Your task to perform on an android device: turn off smart reply in the gmail app Image 0: 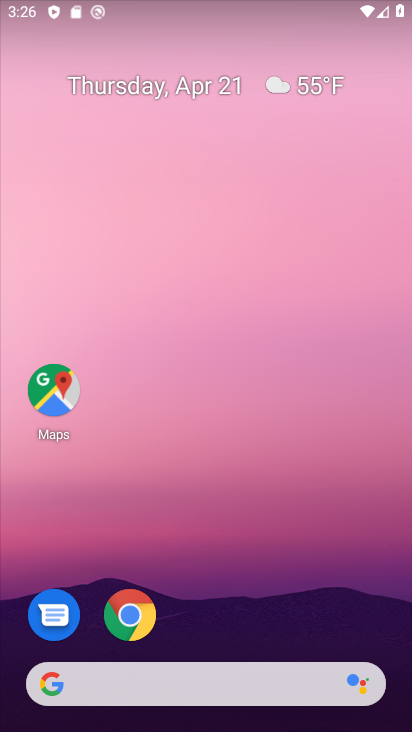
Step 0: drag from (235, 541) to (163, 25)
Your task to perform on an android device: turn off smart reply in the gmail app Image 1: 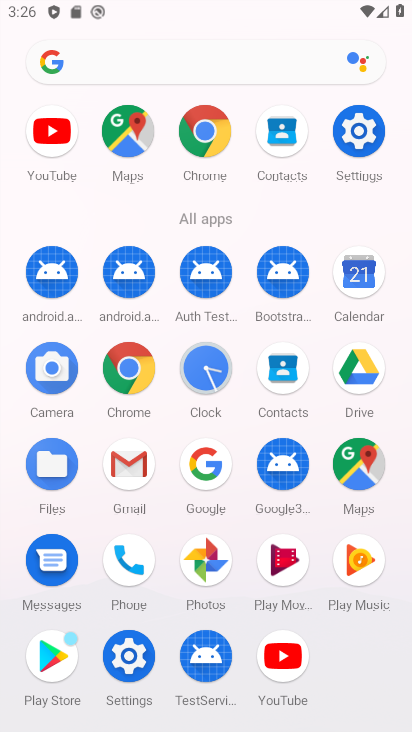
Step 1: click (0, 377)
Your task to perform on an android device: turn off smart reply in the gmail app Image 2: 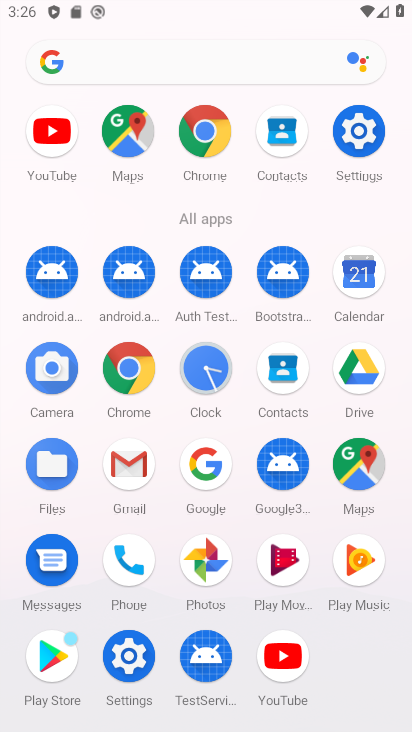
Step 2: click (128, 456)
Your task to perform on an android device: turn off smart reply in the gmail app Image 3: 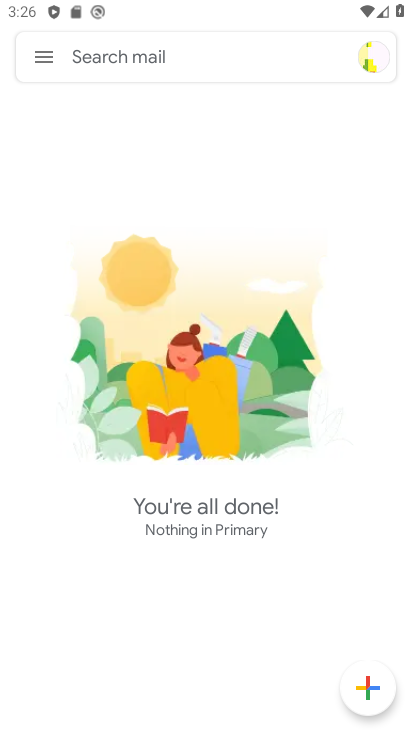
Step 3: click (45, 58)
Your task to perform on an android device: turn off smart reply in the gmail app Image 4: 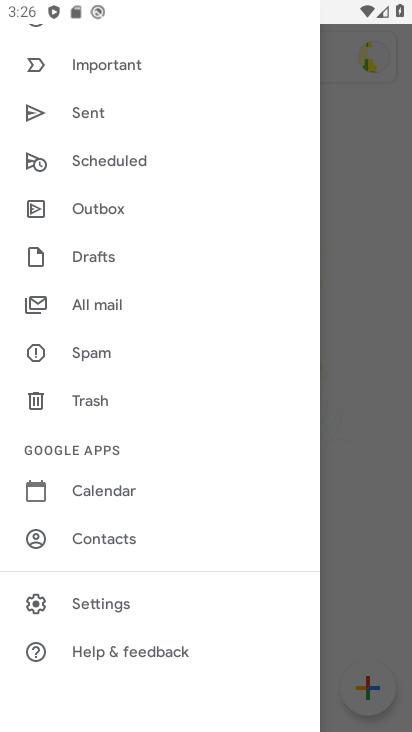
Step 4: drag from (180, 503) to (191, 121)
Your task to perform on an android device: turn off smart reply in the gmail app Image 5: 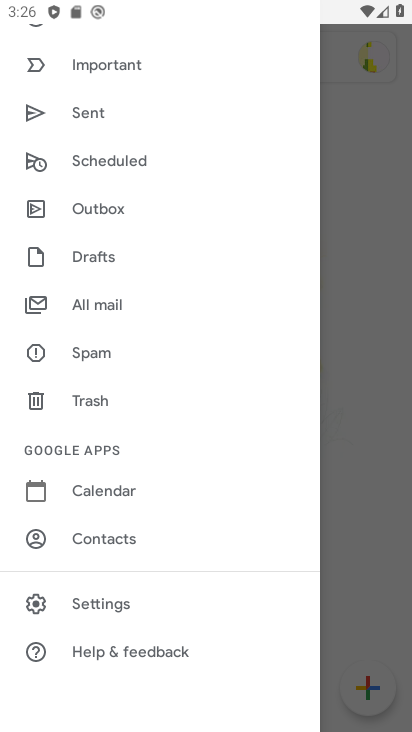
Step 5: click (112, 600)
Your task to perform on an android device: turn off smart reply in the gmail app Image 6: 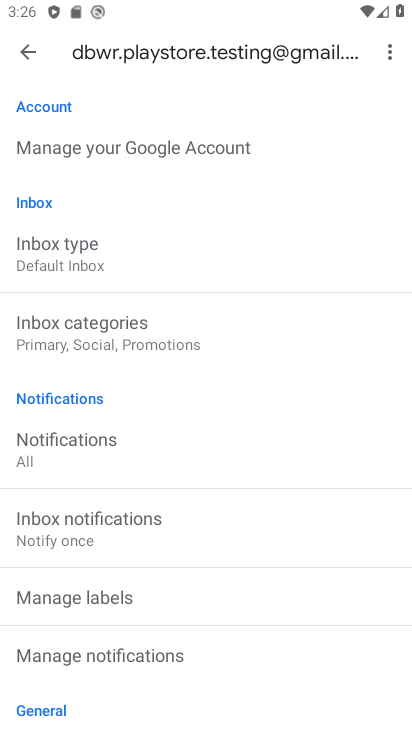
Step 6: drag from (207, 532) to (248, 210)
Your task to perform on an android device: turn off smart reply in the gmail app Image 7: 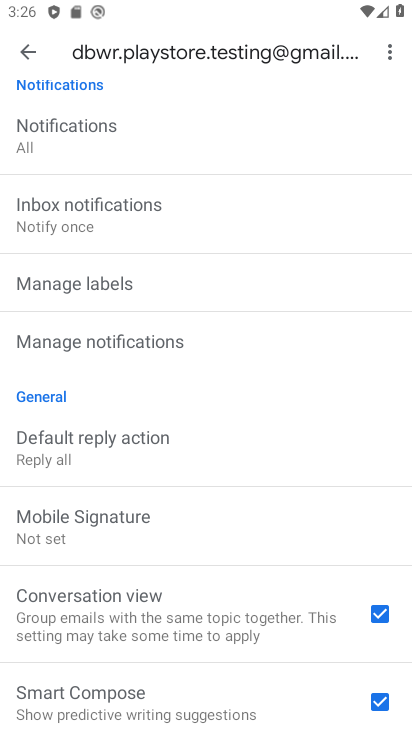
Step 7: drag from (247, 227) to (209, 500)
Your task to perform on an android device: turn off smart reply in the gmail app Image 8: 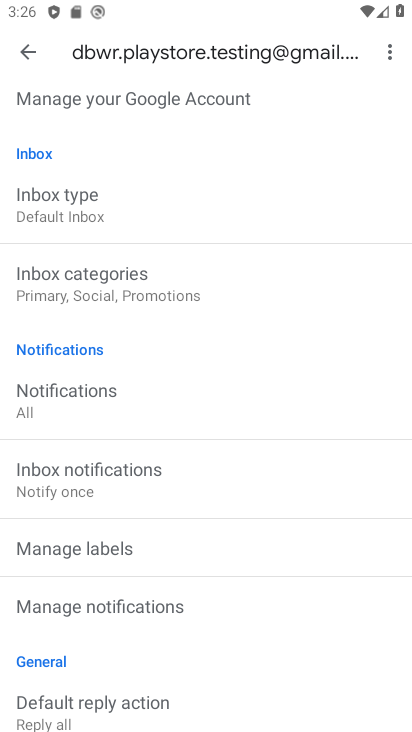
Step 8: drag from (212, 163) to (191, 451)
Your task to perform on an android device: turn off smart reply in the gmail app Image 9: 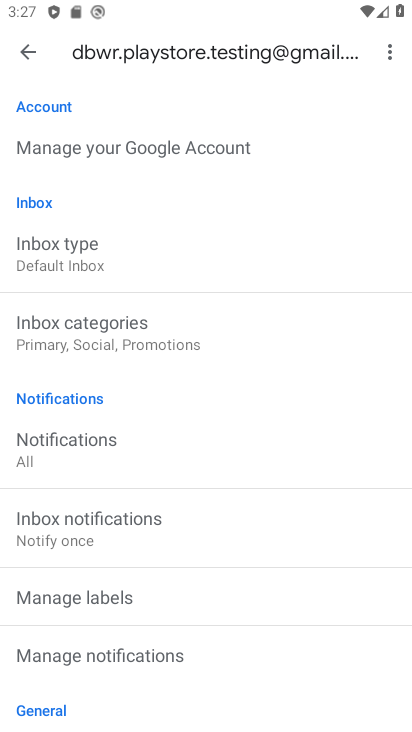
Step 9: drag from (178, 521) to (198, 241)
Your task to perform on an android device: turn off smart reply in the gmail app Image 10: 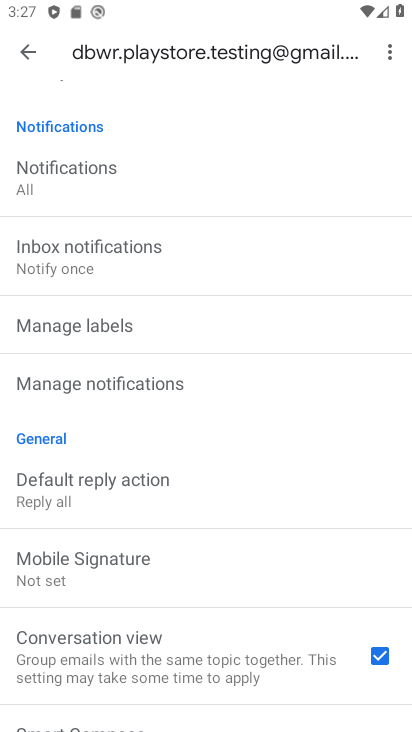
Step 10: drag from (147, 594) to (171, 233)
Your task to perform on an android device: turn off smart reply in the gmail app Image 11: 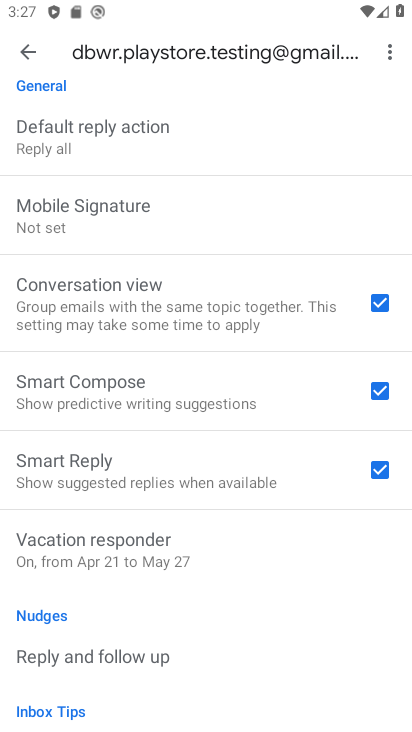
Step 11: click (376, 466)
Your task to perform on an android device: turn off smart reply in the gmail app Image 12: 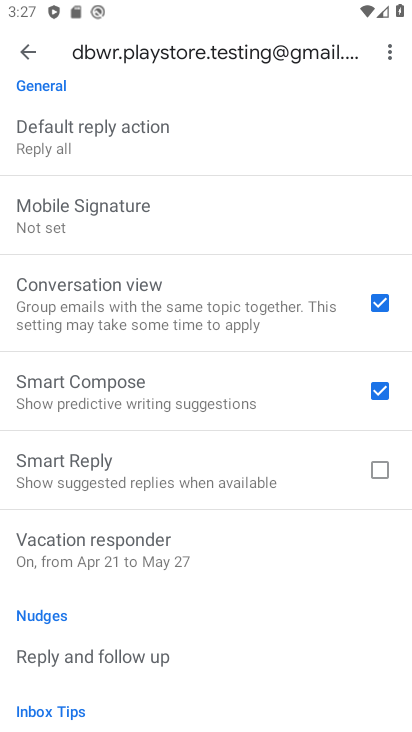
Step 12: task complete